Your task to perform on an android device: open app "Mercado Libre" (install if not already installed) and go to login screen Image 0: 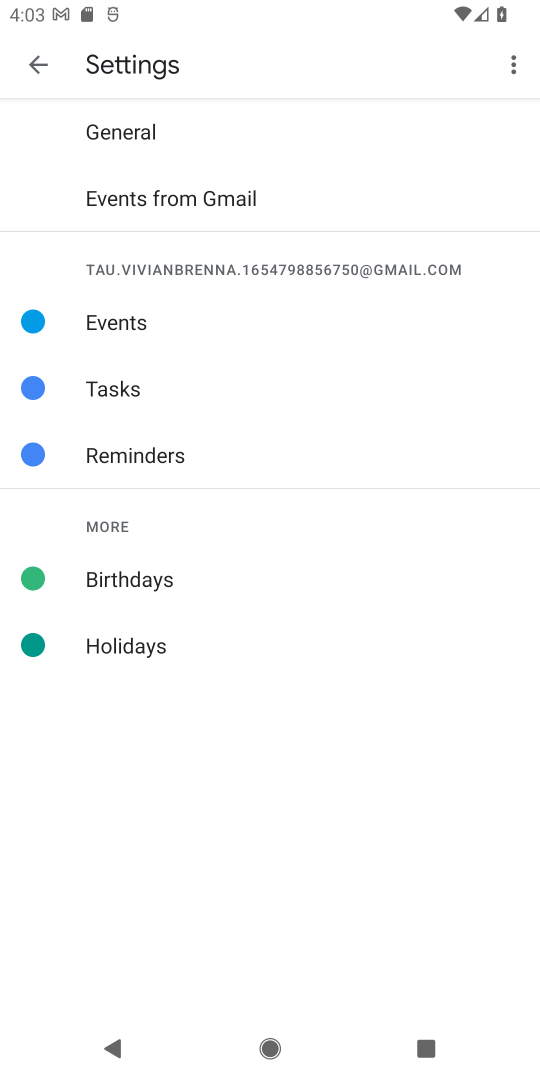
Step 0: press home button
Your task to perform on an android device: open app "Mercado Libre" (install if not already installed) and go to login screen Image 1: 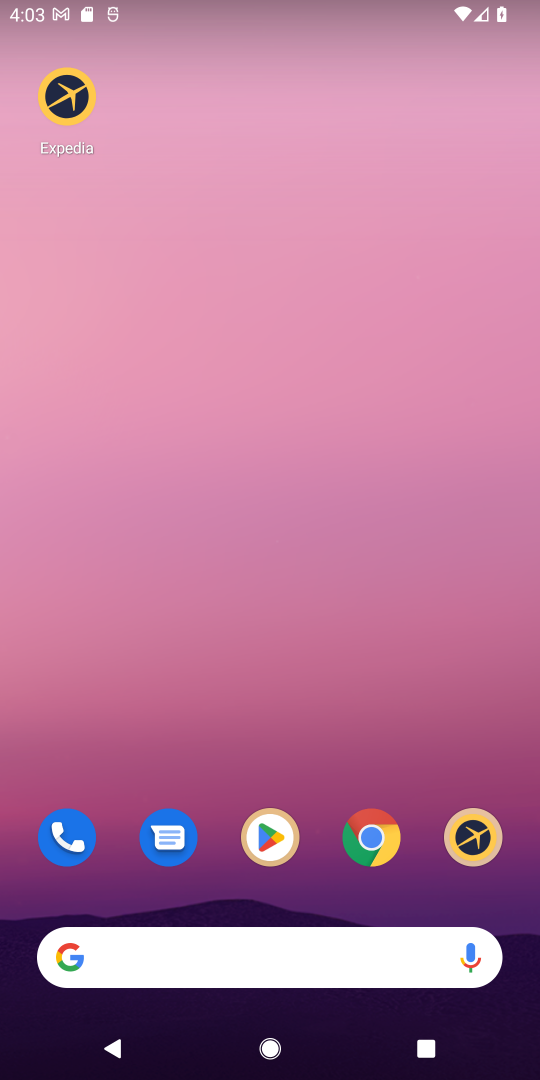
Step 1: press home button
Your task to perform on an android device: open app "Mercado Libre" (install if not already installed) and go to login screen Image 2: 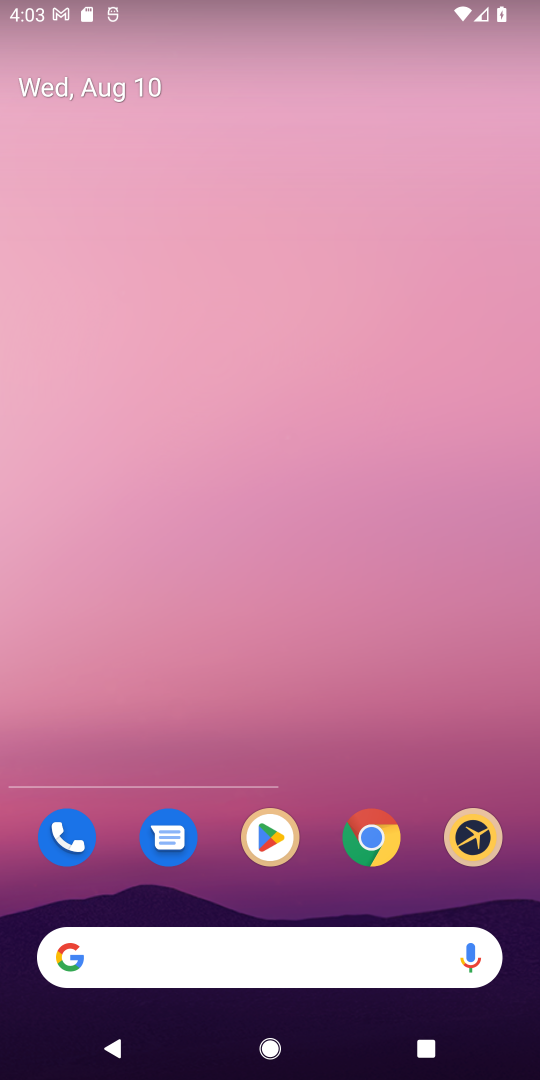
Step 2: click (257, 834)
Your task to perform on an android device: open app "Mercado Libre" (install if not already installed) and go to login screen Image 3: 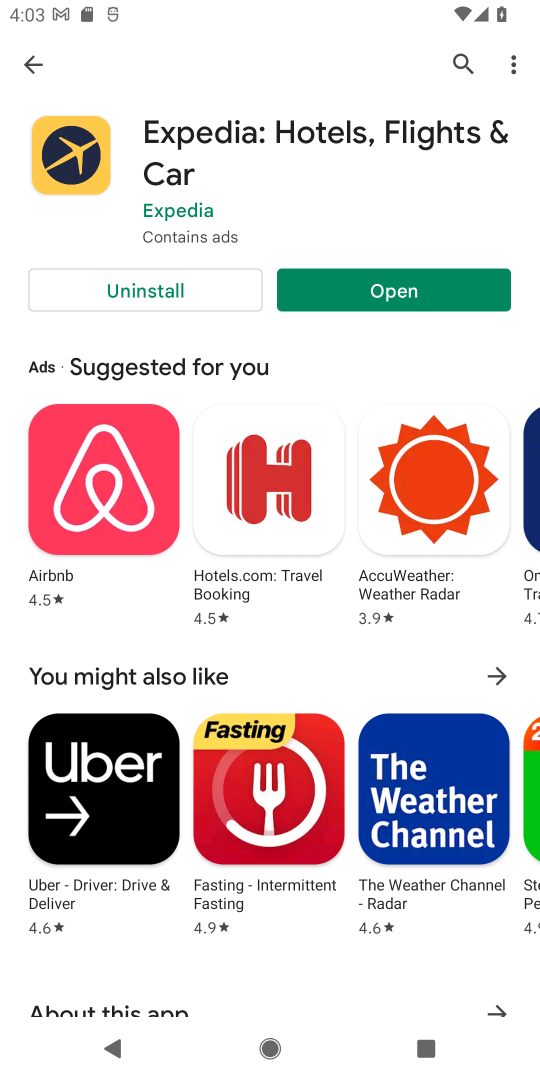
Step 3: click (462, 63)
Your task to perform on an android device: open app "Mercado Libre" (install if not already installed) and go to login screen Image 4: 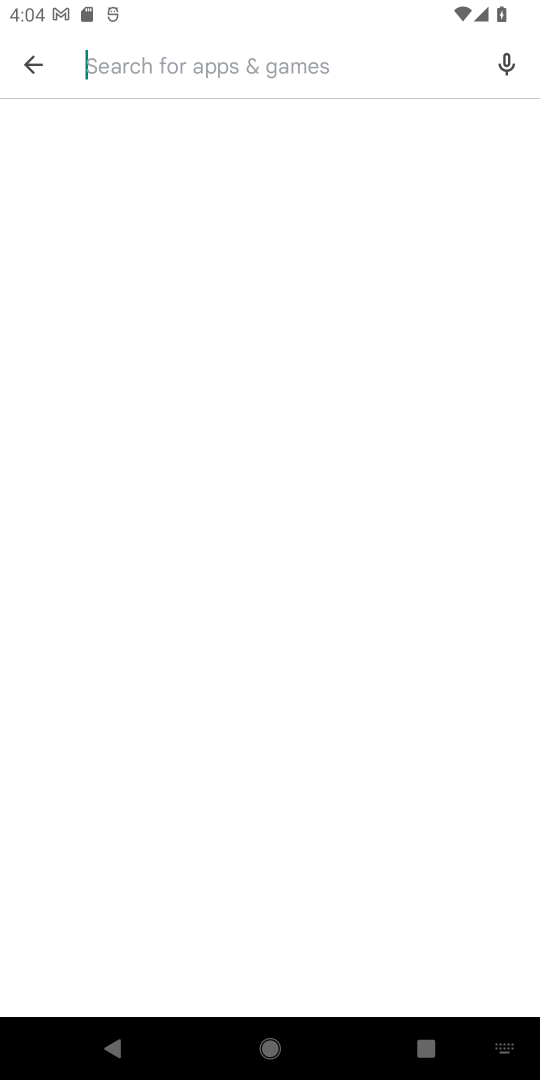
Step 4: type "Mercado Libre"
Your task to perform on an android device: open app "Mercado Libre" (install if not already installed) and go to login screen Image 5: 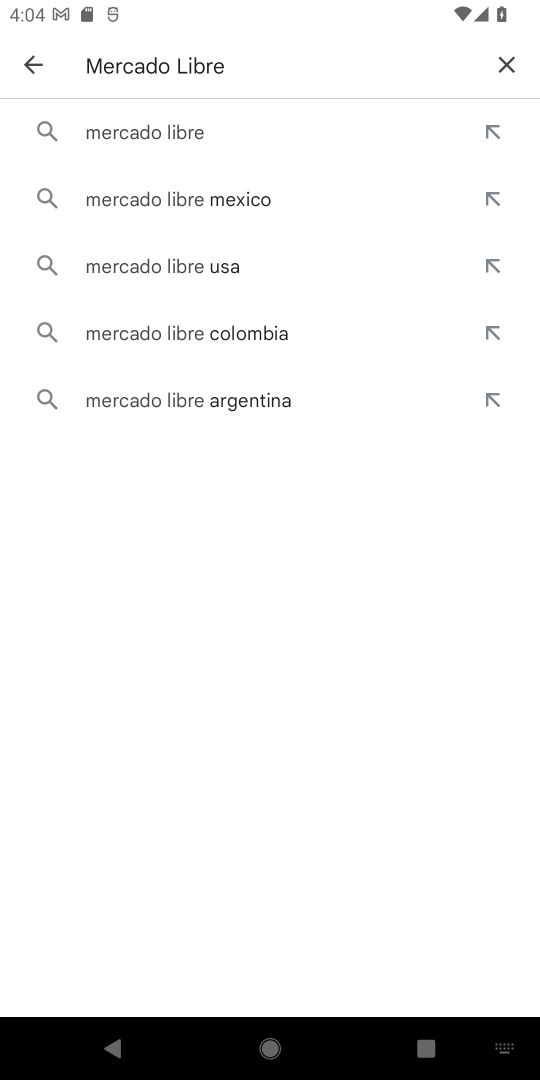
Step 5: click (100, 129)
Your task to perform on an android device: open app "Mercado Libre" (install if not already installed) and go to login screen Image 6: 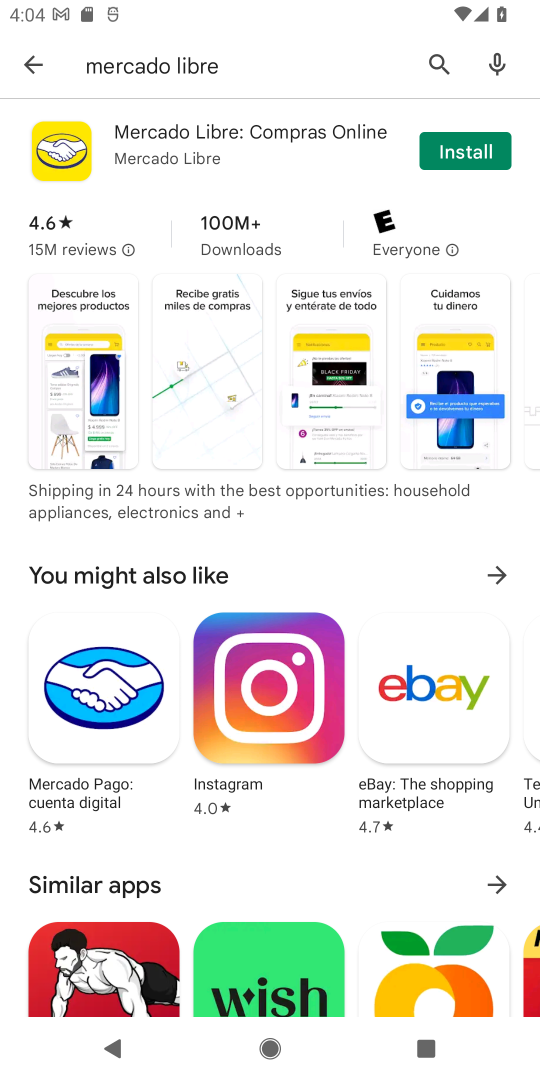
Step 6: click (475, 146)
Your task to perform on an android device: open app "Mercado Libre" (install if not already installed) and go to login screen Image 7: 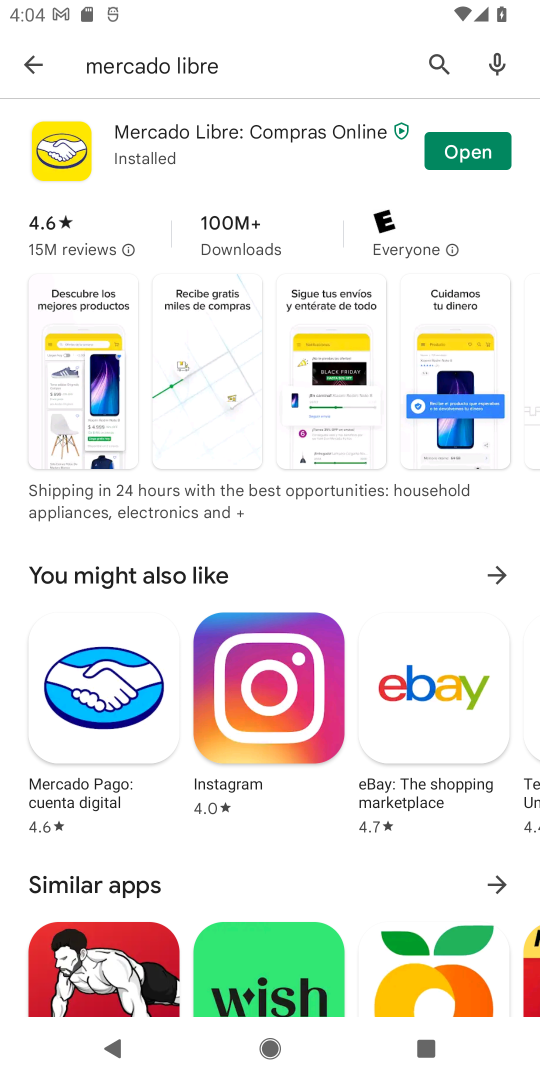
Step 7: click (453, 156)
Your task to perform on an android device: open app "Mercado Libre" (install if not already installed) and go to login screen Image 8: 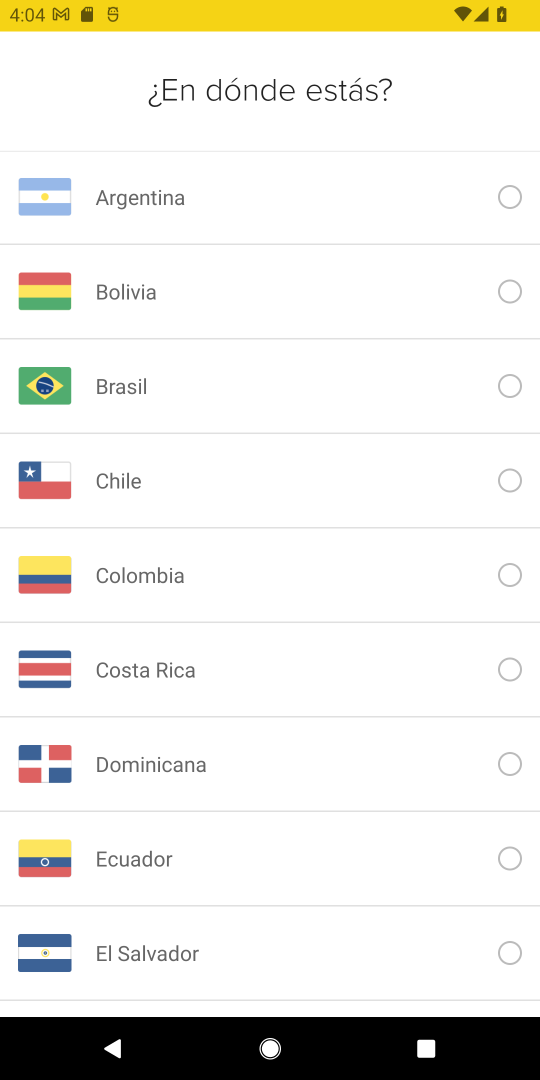
Step 8: task complete